Your task to perform on an android device: Do I have any events tomorrow? Image 0: 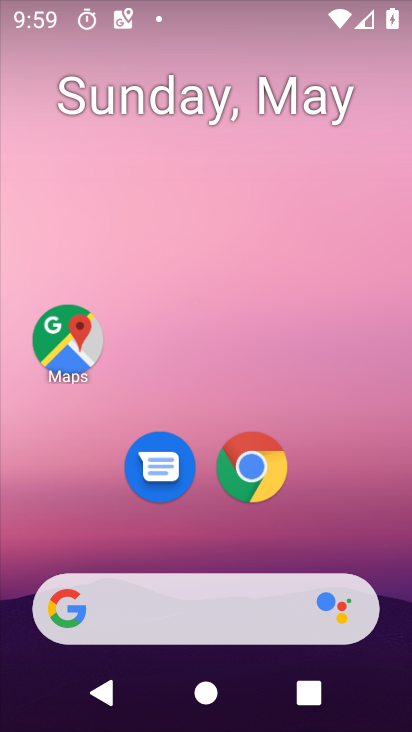
Step 0: drag from (204, 536) to (217, 183)
Your task to perform on an android device: Do I have any events tomorrow? Image 1: 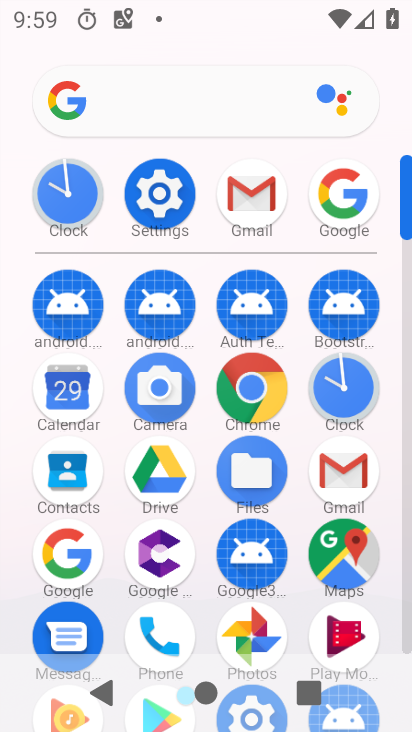
Step 1: click (68, 394)
Your task to perform on an android device: Do I have any events tomorrow? Image 2: 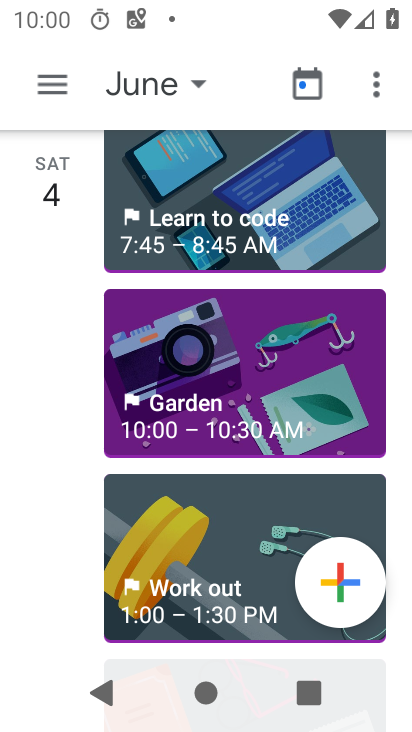
Step 2: click (182, 77)
Your task to perform on an android device: Do I have any events tomorrow? Image 3: 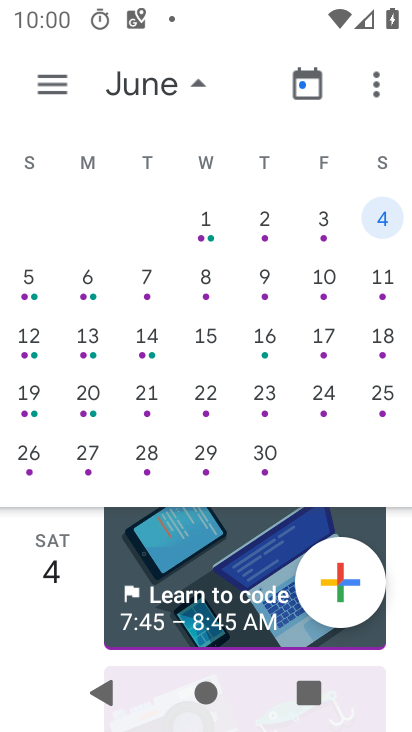
Step 3: click (32, 275)
Your task to perform on an android device: Do I have any events tomorrow? Image 4: 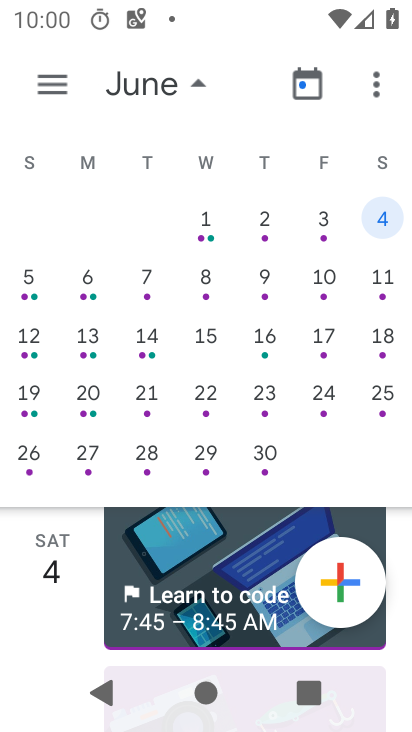
Step 4: drag from (55, 309) to (375, 324)
Your task to perform on an android device: Do I have any events tomorrow? Image 5: 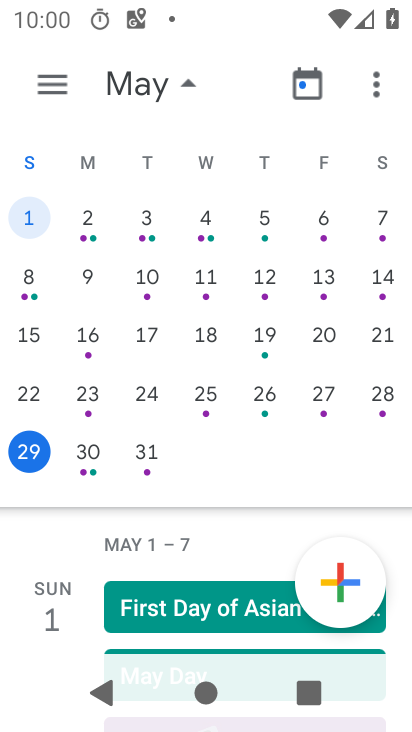
Step 5: click (77, 452)
Your task to perform on an android device: Do I have any events tomorrow? Image 6: 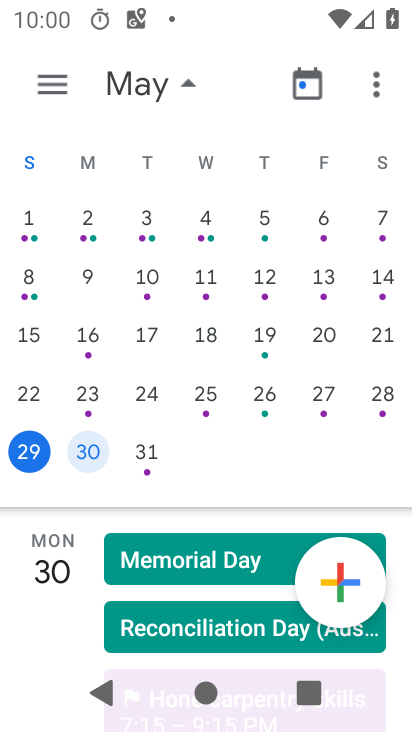
Step 6: task complete